Your task to perform on an android device: Show me popular videos on Youtube Image 0: 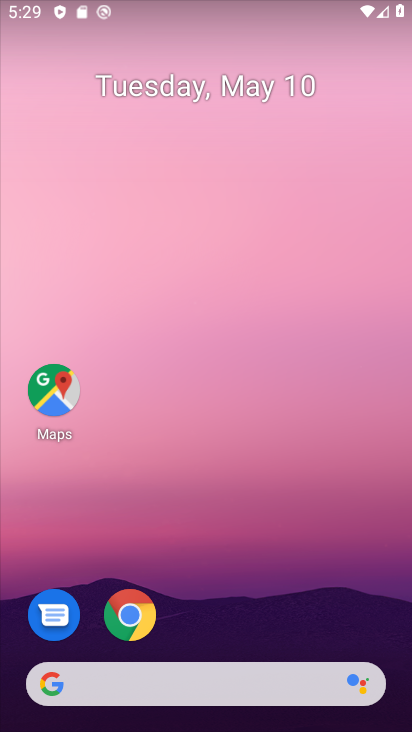
Step 0: drag from (237, 617) to (286, 12)
Your task to perform on an android device: Show me popular videos on Youtube Image 1: 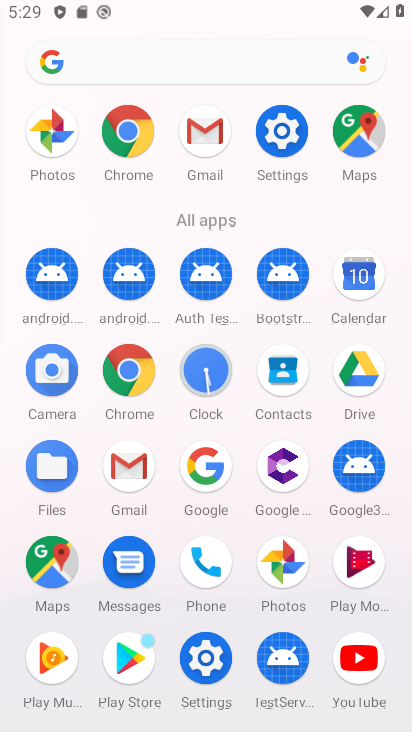
Step 1: click (368, 652)
Your task to perform on an android device: Show me popular videos on Youtube Image 2: 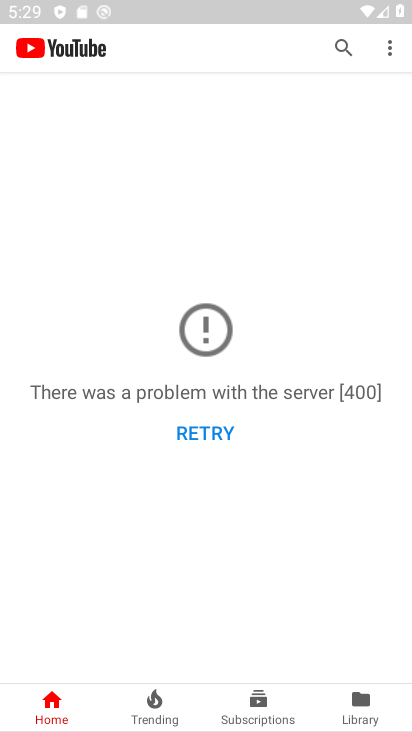
Step 2: click (181, 419)
Your task to perform on an android device: Show me popular videos on Youtube Image 3: 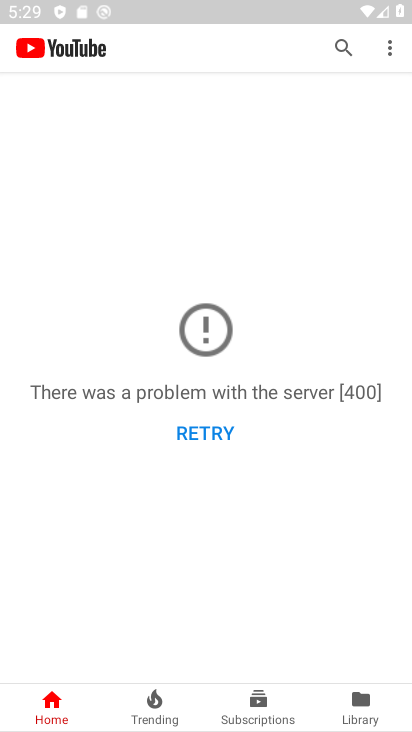
Step 3: click (195, 440)
Your task to perform on an android device: Show me popular videos on Youtube Image 4: 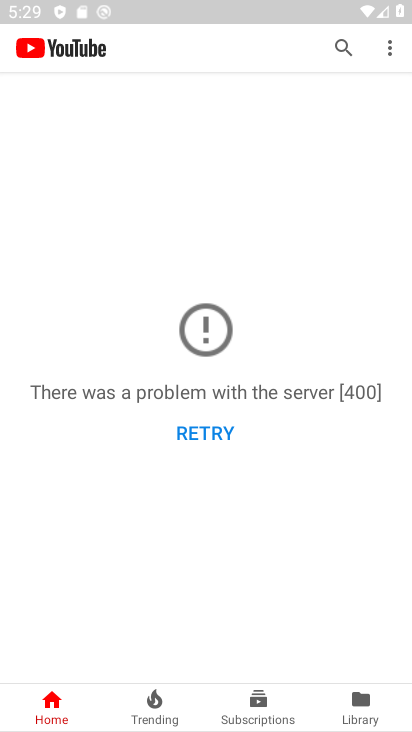
Step 4: click (197, 440)
Your task to perform on an android device: Show me popular videos on Youtube Image 5: 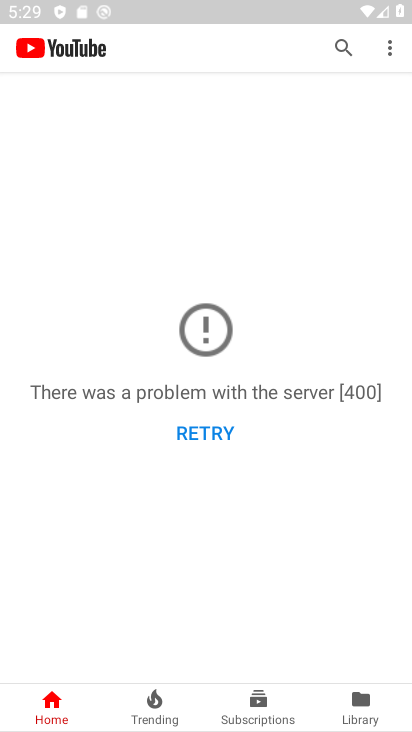
Step 5: click (211, 434)
Your task to perform on an android device: Show me popular videos on Youtube Image 6: 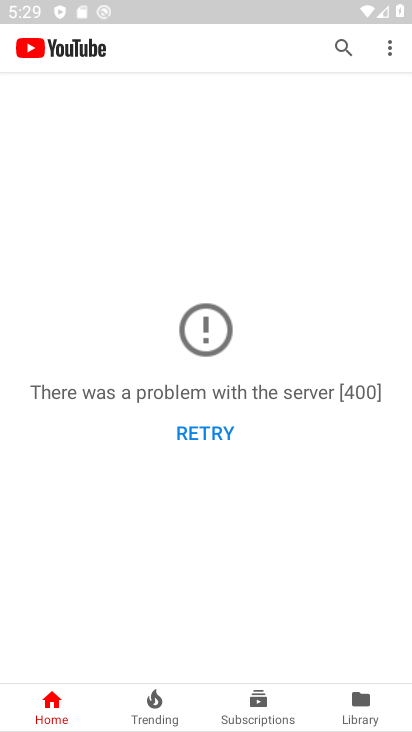
Step 6: task complete